Your task to perform on an android device: turn on data saver in the chrome app Image 0: 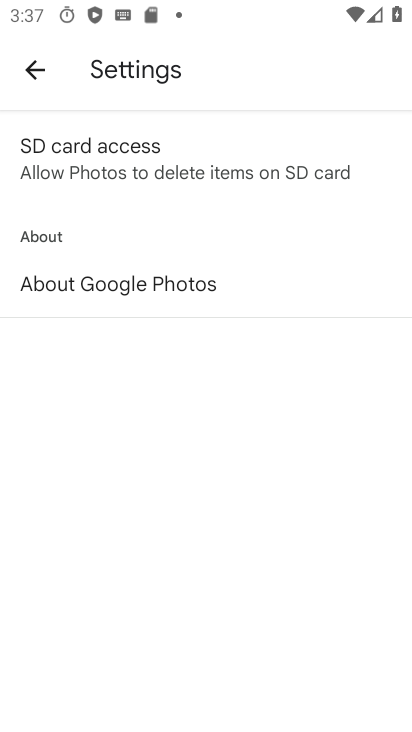
Step 0: press home button
Your task to perform on an android device: turn on data saver in the chrome app Image 1: 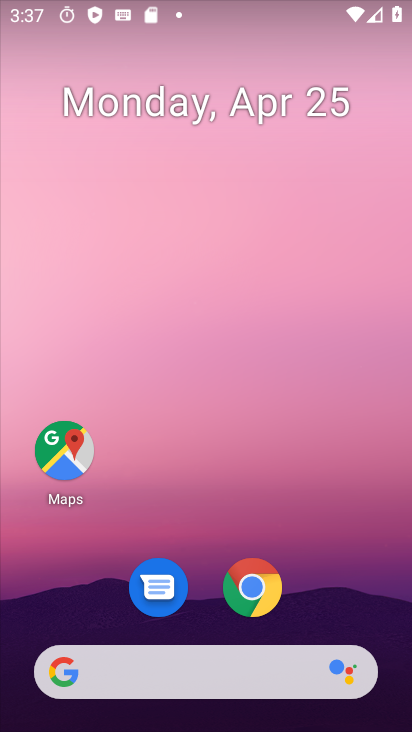
Step 1: drag from (343, 546) to (336, 54)
Your task to perform on an android device: turn on data saver in the chrome app Image 2: 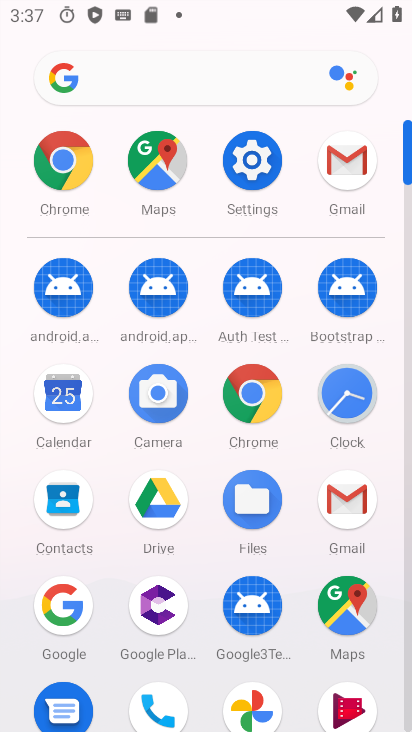
Step 2: click (268, 157)
Your task to perform on an android device: turn on data saver in the chrome app Image 3: 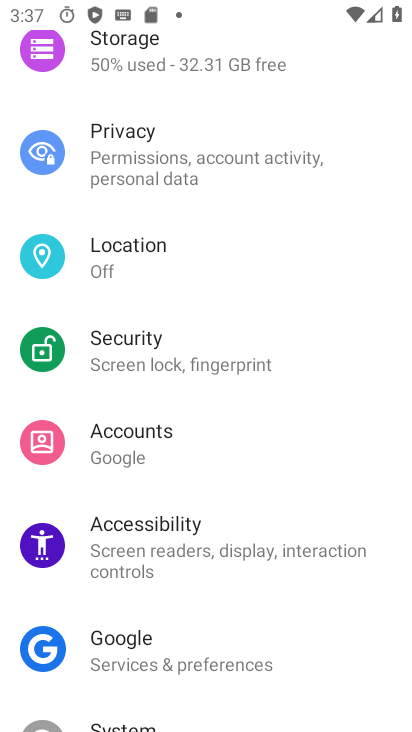
Step 3: drag from (317, 519) to (382, 126)
Your task to perform on an android device: turn on data saver in the chrome app Image 4: 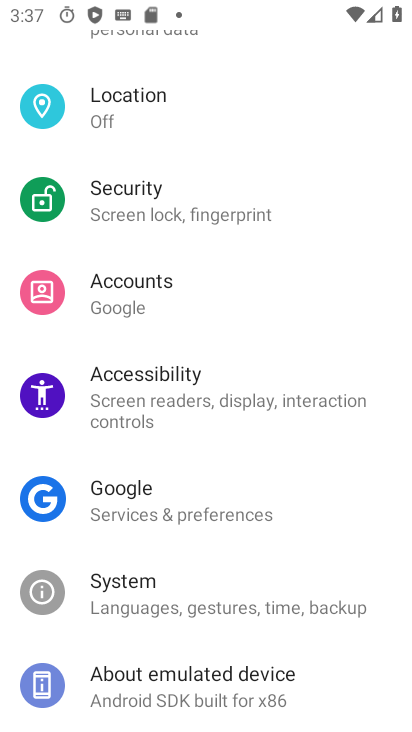
Step 4: drag from (235, 503) to (243, 622)
Your task to perform on an android device: turn on data saver in the chrome app Image 5: 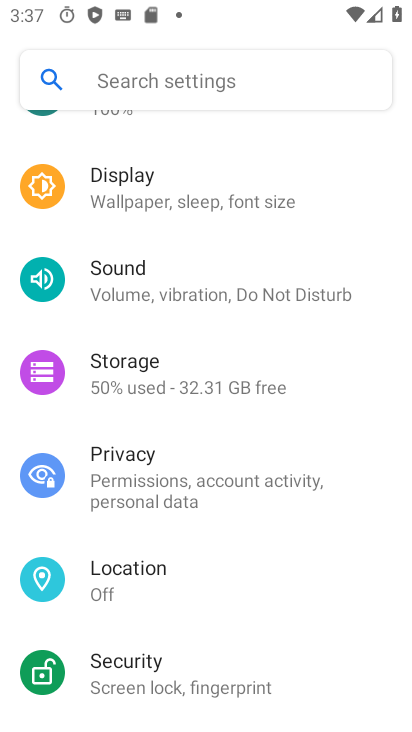
Step 5: drag from (212, 307) to (196, 655)
Your task to perform on an android device: turn on data saver in the chrome app Image 6: 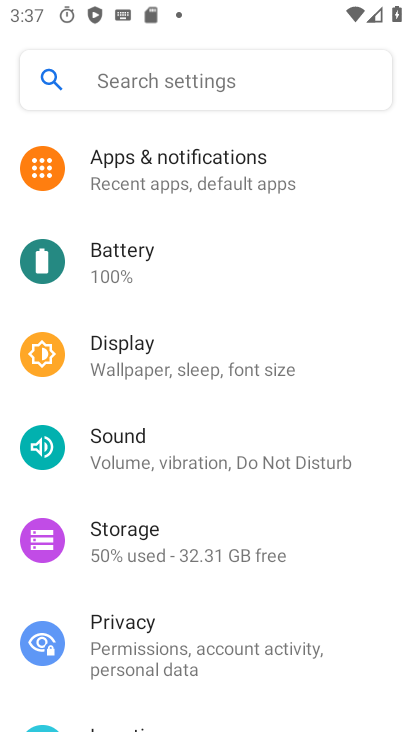
Step 6: click (222, 182)
Your task to perform on an android device: turn on data saver in the chrome app Image 7: 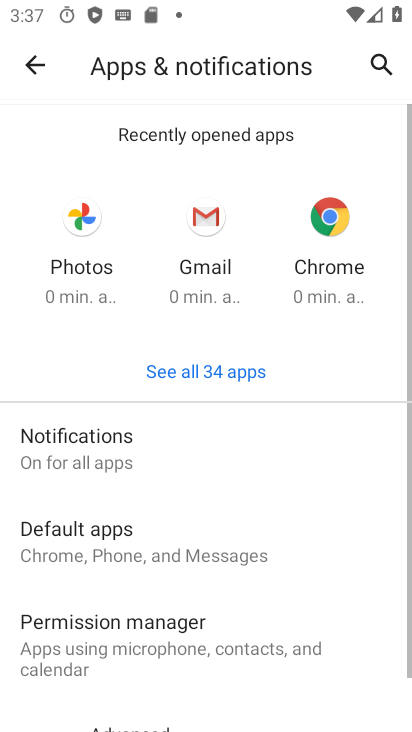
Step 7: click (329, 226)
Your task to perform on an android device: turn on data saver in the chrome app Image 8: 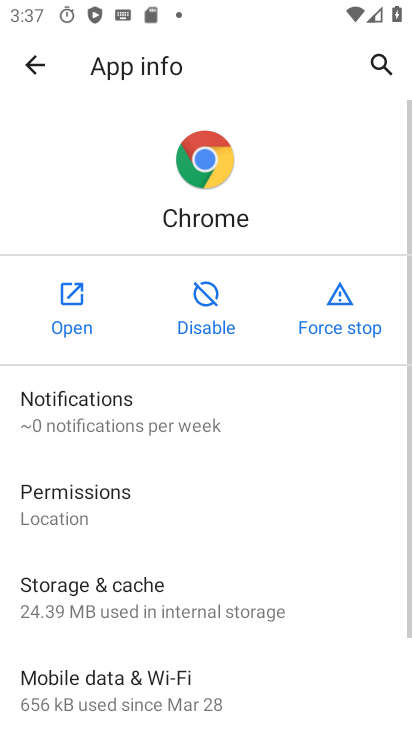
Step 8: click (56, 301)
Your task to perform on an android device: turn on data saver in the chrome app Image 9: 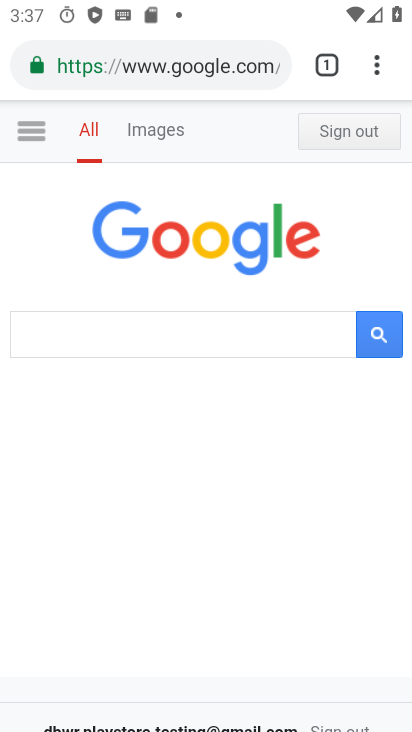
Step 9: drag from (375, 64) to (238, 635)
Your task to perform on an android device: turn on data saver in the chrome app Image 10: 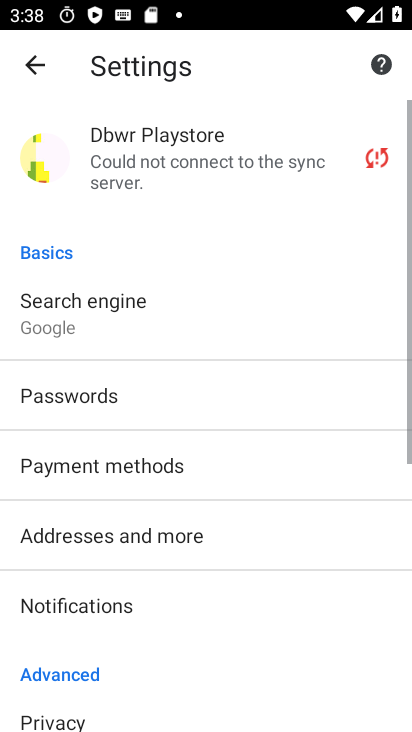
Step 10: drag from (239, 626) to (273, 81)
Your task to perform on an android device: turn on data saver in the chrome app Image 11: 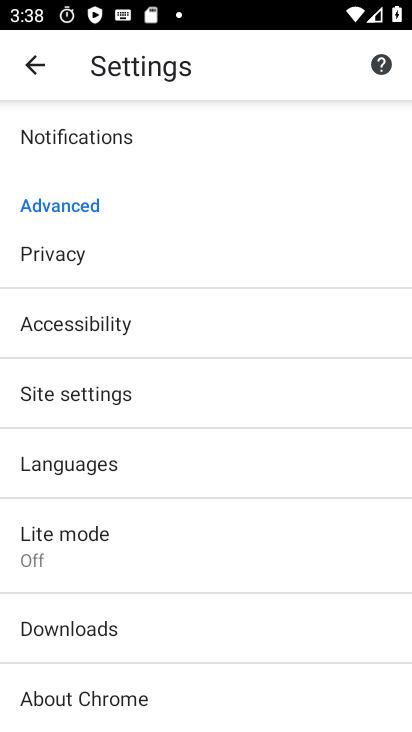
Step 11: click (79, 555)
Your task to perform on an android device: turn on data saver in the chrome app Image 12: 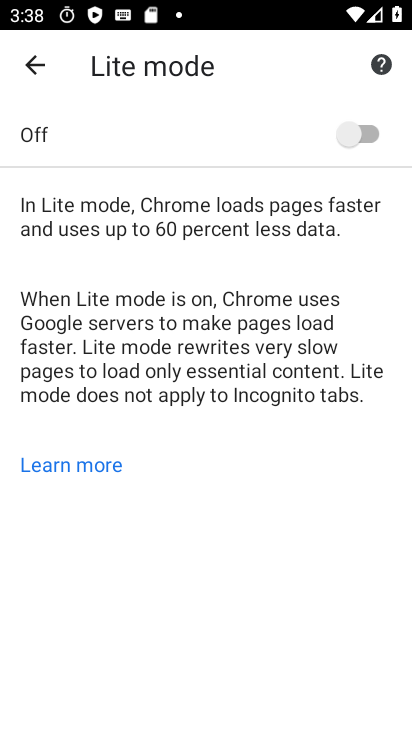
Step 12: click (356, 138)
Your task to perform on an android device: turn on data saver in the chrome app Image 13: 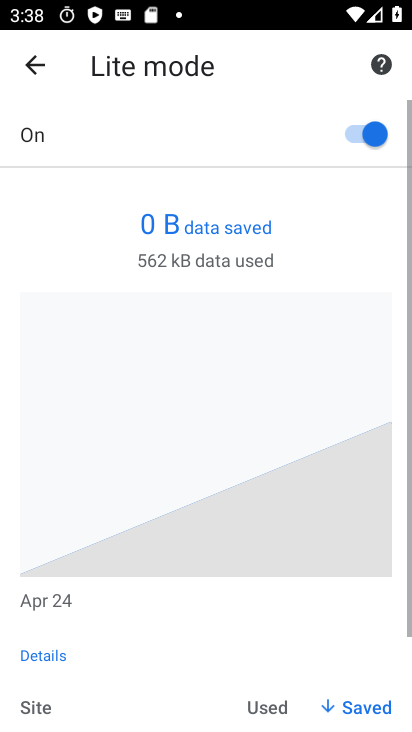
Step 13: task complete